Your task to perform on an android device: see tabs open on other devices in the chrome app Image 0: 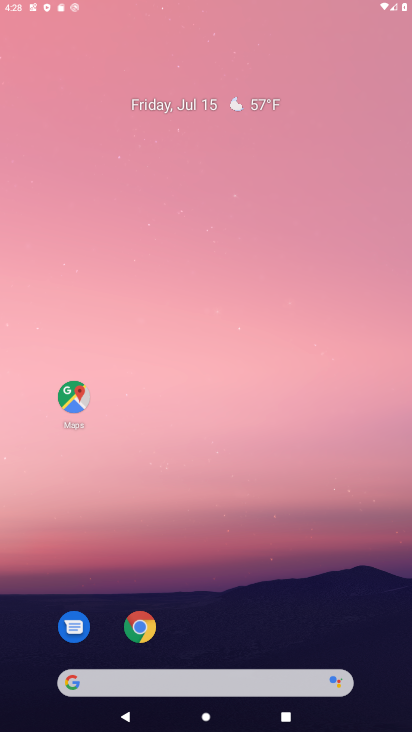
Step 0: press home button
Your task to perform on an android device: see tabs open on other devices in the chrome app Image 1: 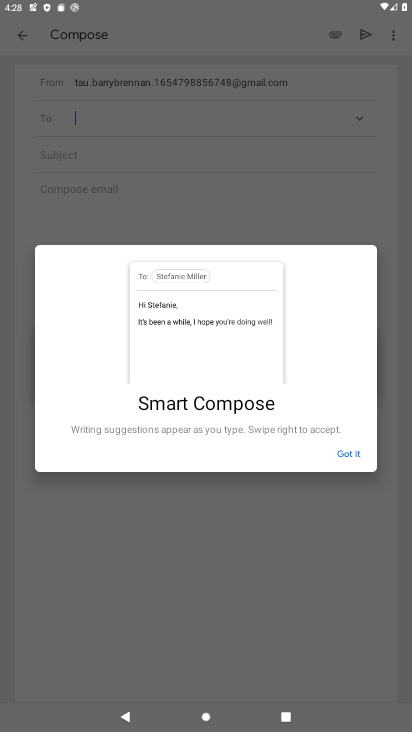
Step 1: press home button
Your task to perform on an android device: see tabs open on other devices in the chrome app Image 2: 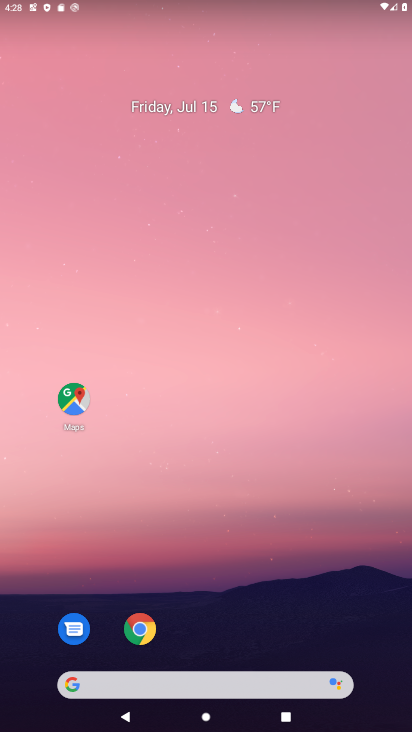
Step 2: drag from (229, 636) to (303, 123)
Your task to perform on an android device: see tabs open on other devices in the chrome app Image 3: 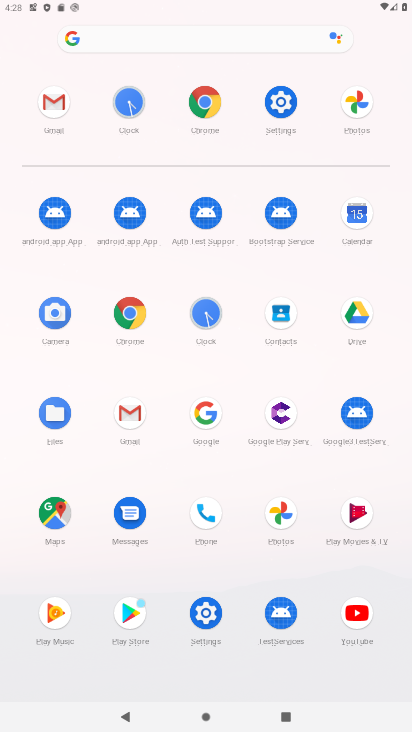
Step 3: click (205, 102)
Your task to perform on an android device: see tabs open on other devices in the chrome app Image 4: 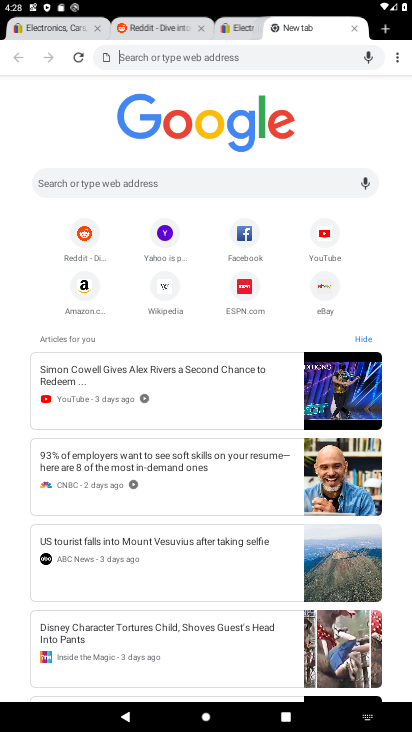
Step 4: task complete